Your task to perform on an android device: check out phone information Image 0: 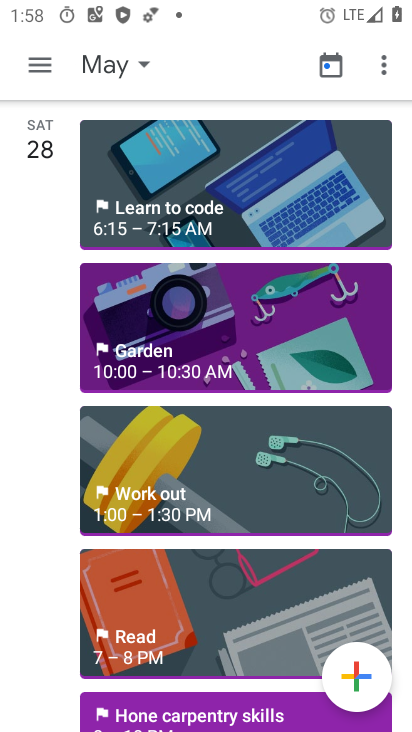
Step 0: press home button
Your task to perform on an android device: check out phone information Image 1: 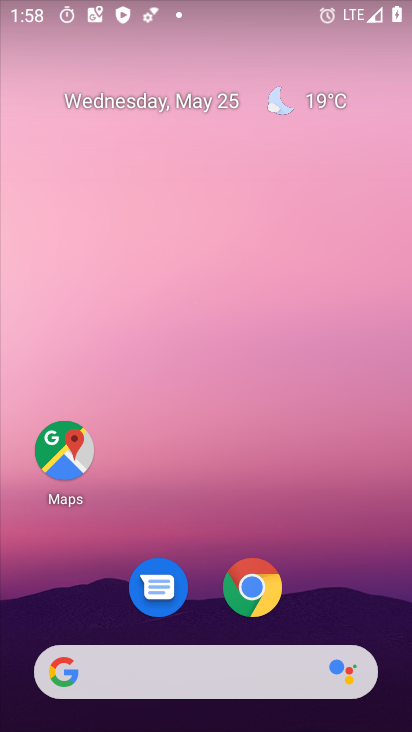
Step 1: drag from (161, 726) to (157, 0)
Your task to perform on an android device: check out phone information Image 2: 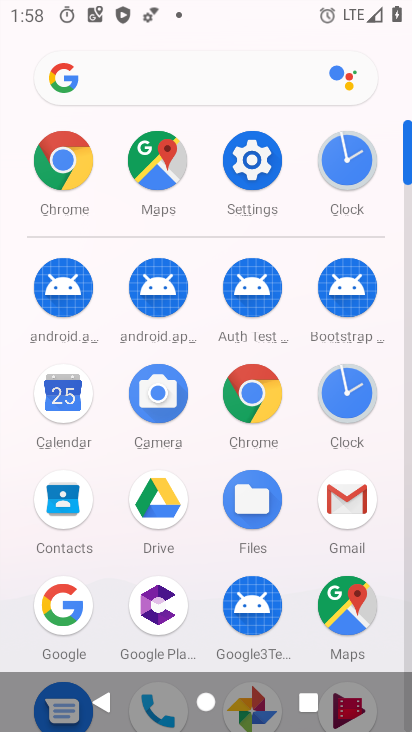
Step 2: click (260, 161)
Your task to perform on an android device: check out phone information Image 3: 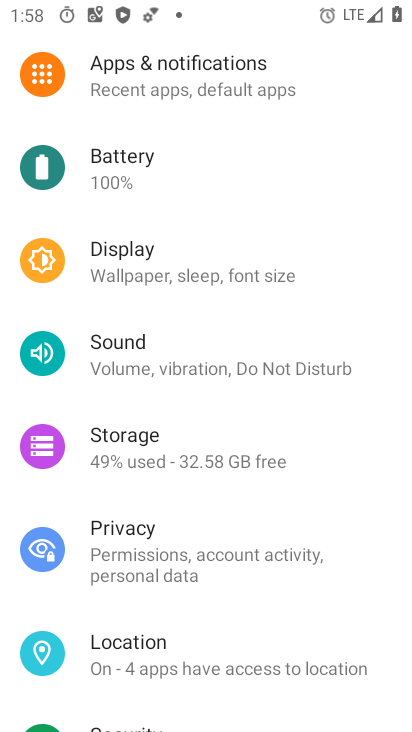
Step 3: drag from (200, 670) to (210, 143)
Your task to perform on an android device: check out phone information Image 4: 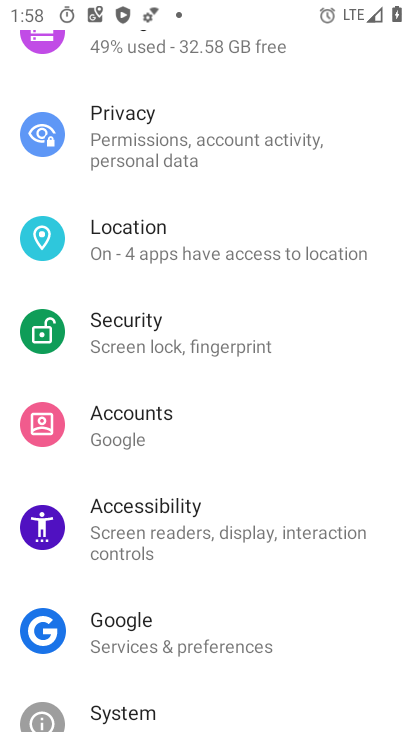
Step 4: drag from (217, 620) to (231, 248)
Your task to perform on an android device: check out phone information Image 5: 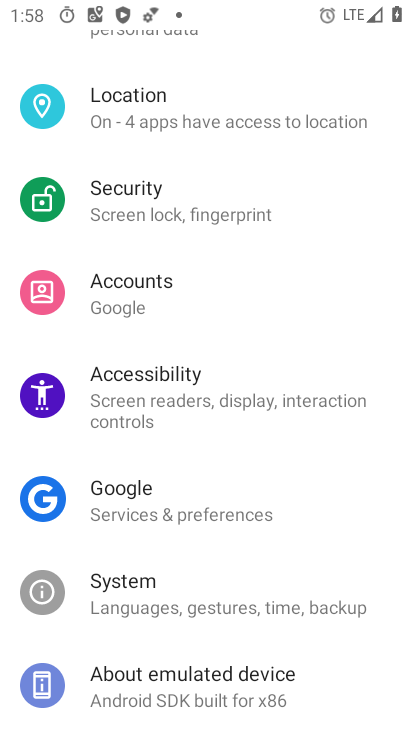
Step 5: drag from (203, 678) to (203, 191)
Your task to perform on an android device: check out phone information Image 6: 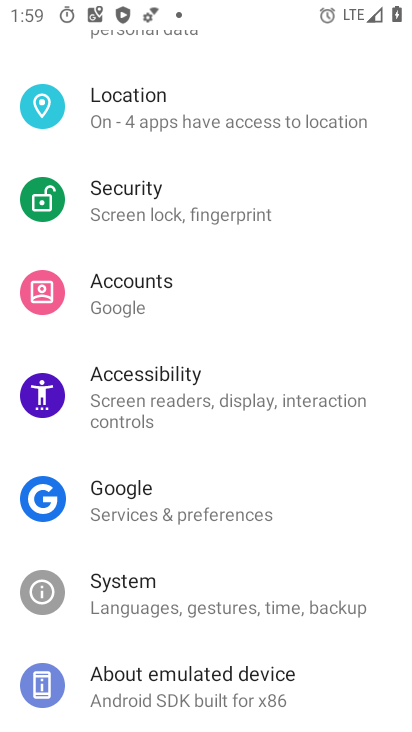
Step 6: click (143, 676)
Your task to perform on an android device: check out phone information Image 7: 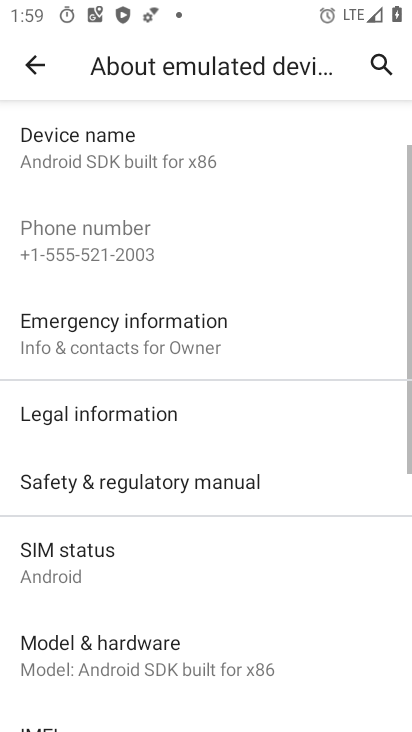
Step 7: task complete